Your task to perform on an android device: allow notifications from all sites in the chrome app Image 0: 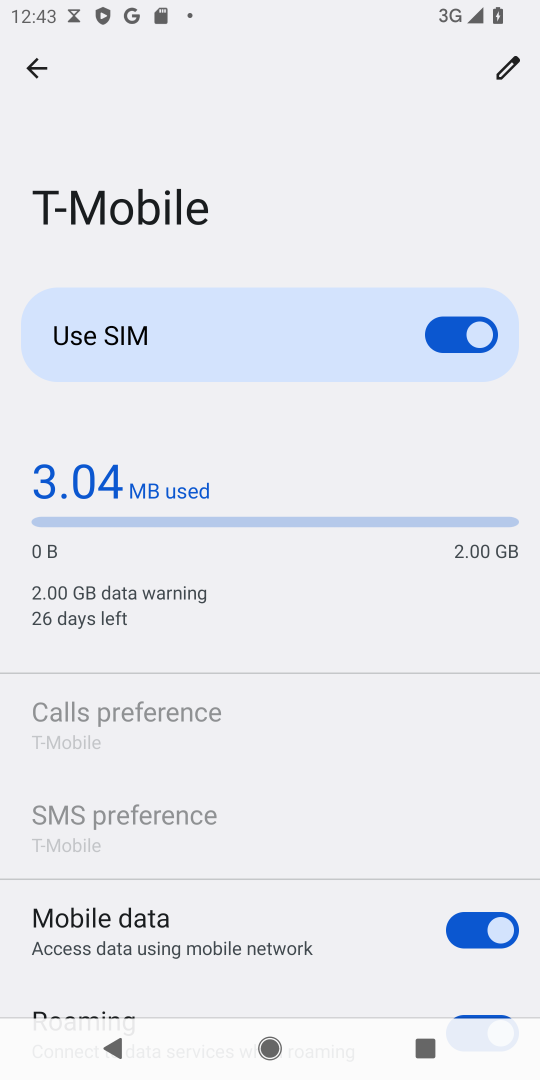
Step 0: press home button
Your task to perform on an android device: allow notifications from all sites in the chrome app Image 1: 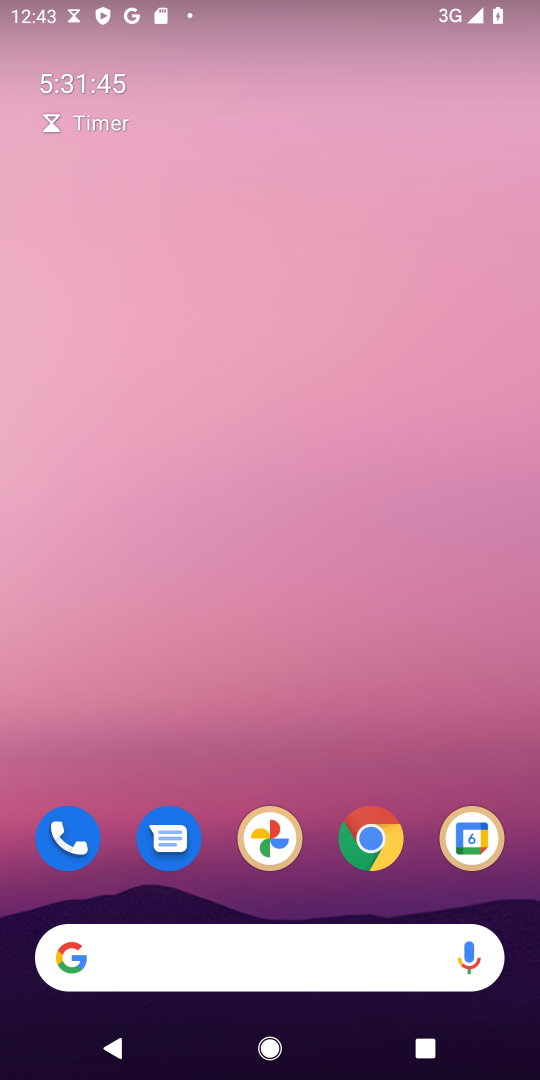
Step 1: click (371, 837)
Your task to perform on an android device: allow notifications from all sites in the chrome app Image 2: 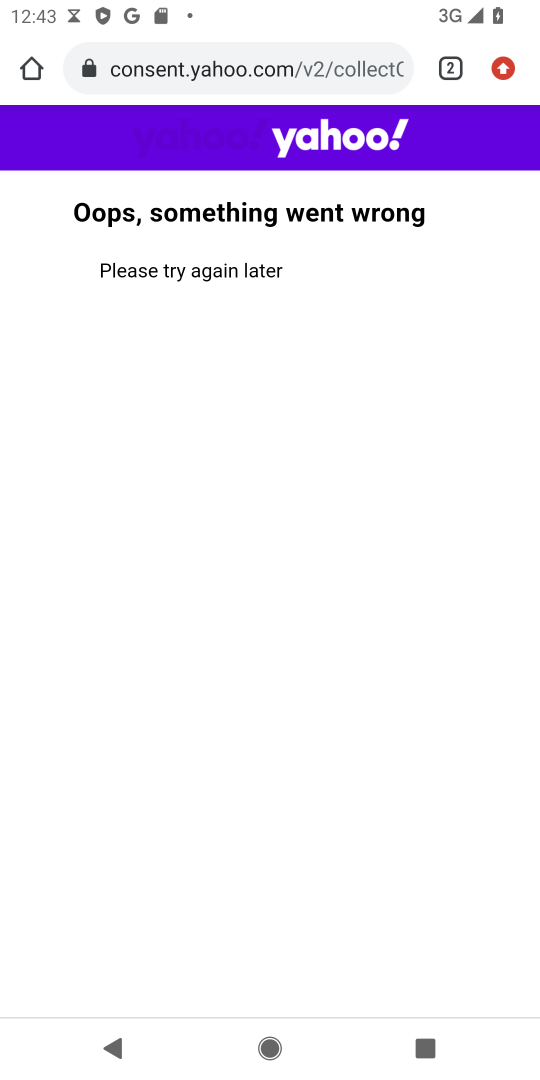
Step 2: click (501, 75)
Your task to perform on an android device: allow notifications from all sites in the chrome app Image 3: 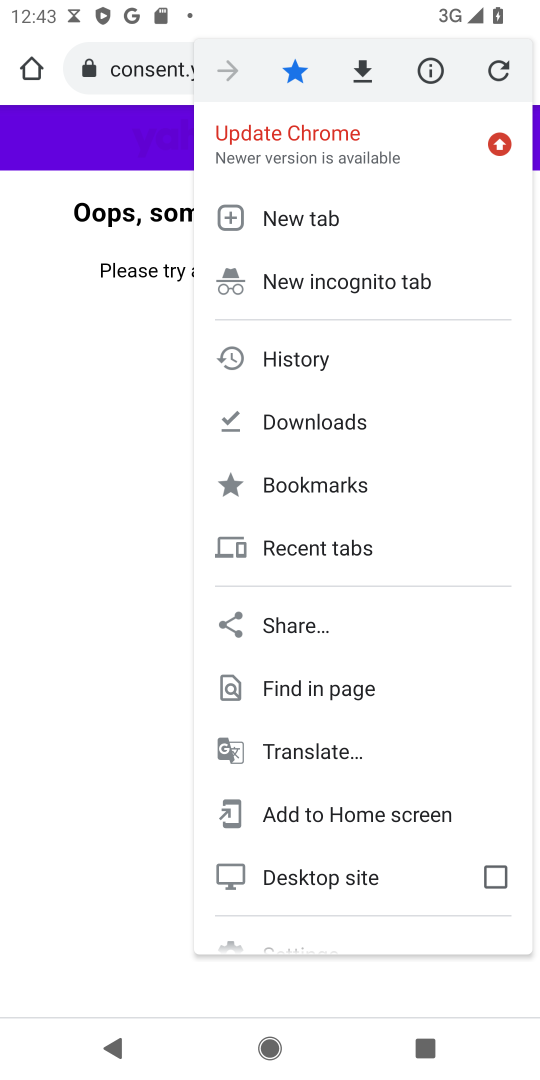
Step 3: drag from (333, 768) to (307, 362)
Your task to perform on an android device: allow notifications from all sites in the chrome app Image 4: 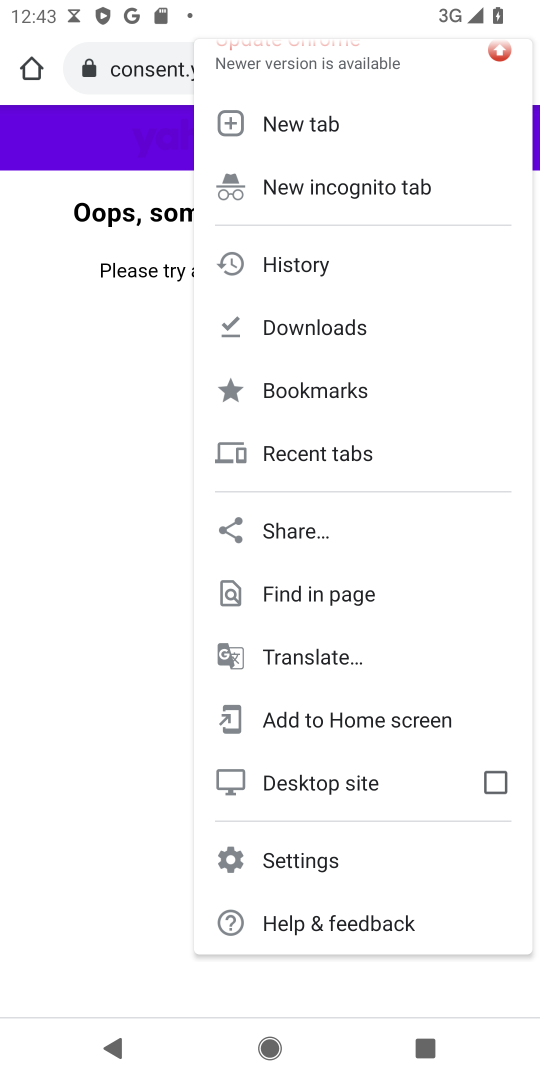
Step 4: click (323, 844)
Your task to perform on an android device: allow notifications from all sites in the chrome app Image 5: 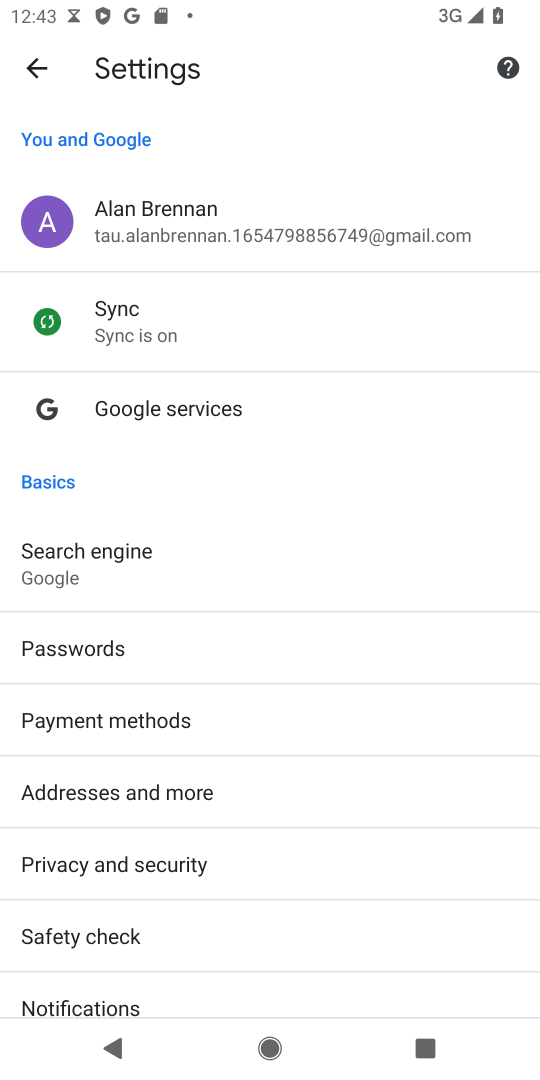
Step 5: click (157, 994)
Your task to perform on an android device: allow notifications from all sites in the chrome app Image 6: 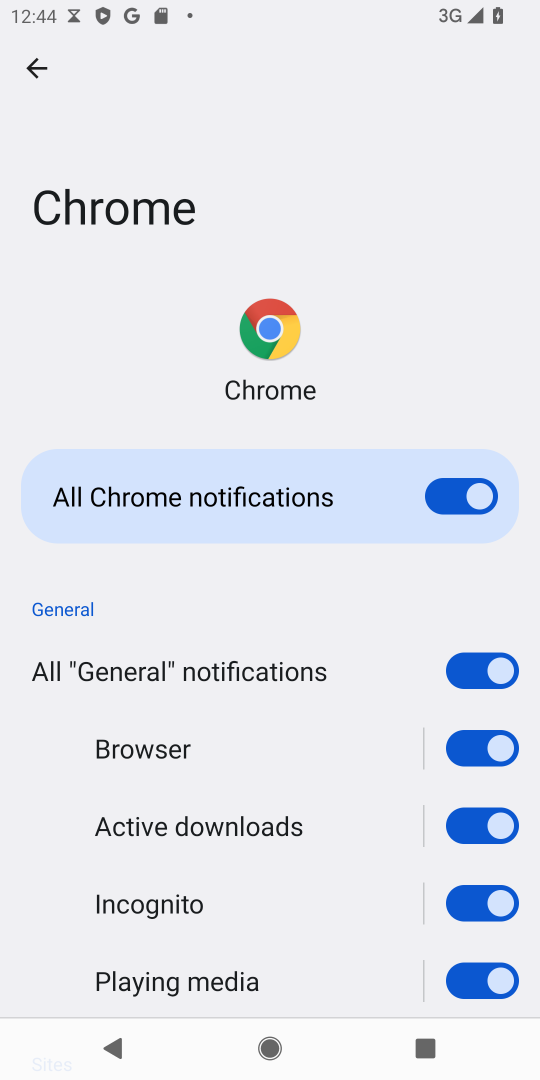
Step 6: task complete